Your task to perform on an android device: turn on the 24-hour format for clock Image 0: 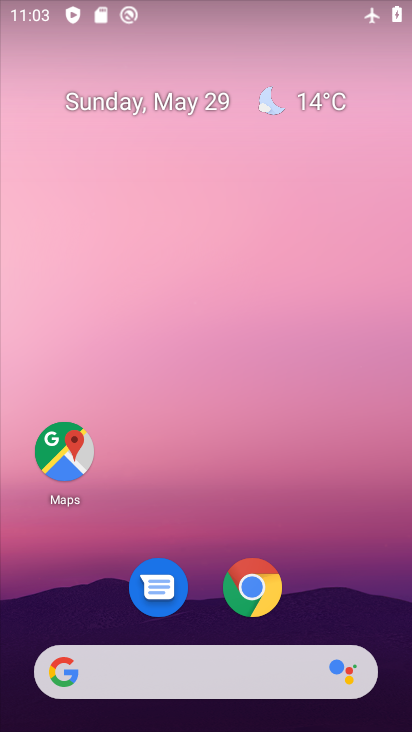
Step 0: drag from (372, 509) to (354, 80)
Your task to perform on an android device: turn on the 24-hour format for clock Image 1: 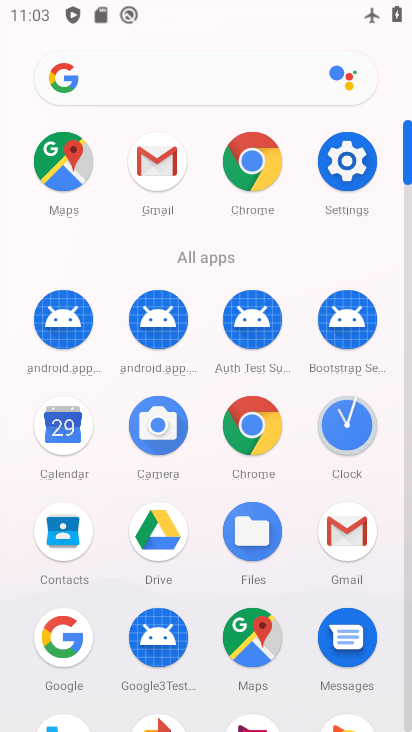
Step 1: click (353, 152)
Your task to perform on an android device: turn on the 24-hour format for clock Image 2: 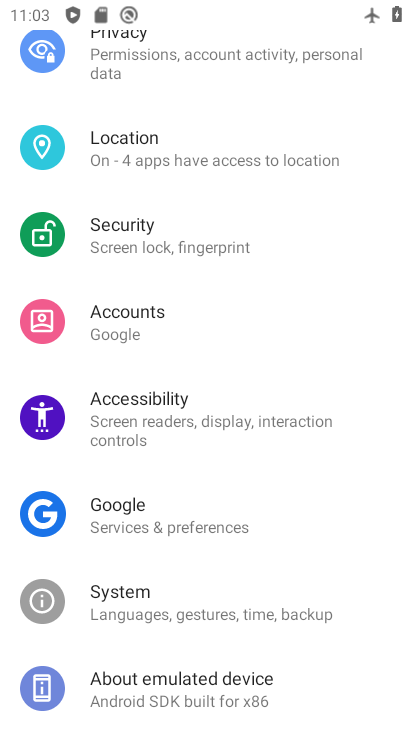
Step 2: drag from (265, 110) to (304, 638)
Your task to perform on an android device: turn on the 24-hour format for clock Image 3: 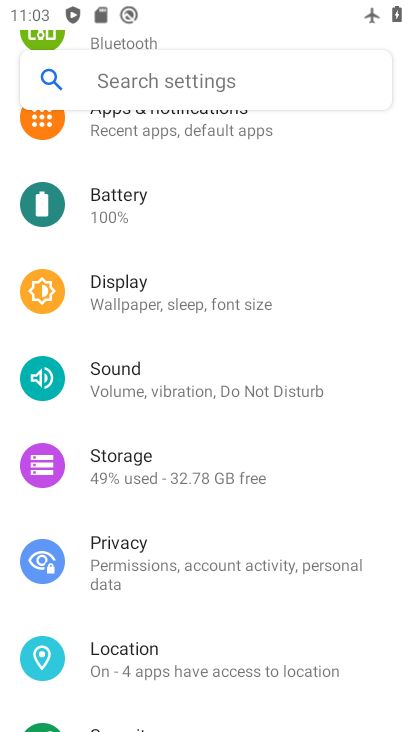
Step 3: drag from (274, 192) to (348, 691)
Your task to perform on an android device: turn on the 24-hour format for clock Image 4: 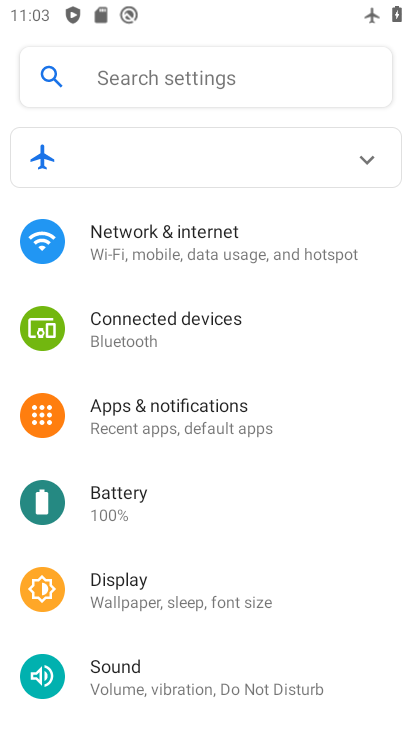
Step 4: click (122, 157)
Your task to perform on an android device: turn on the 24-hour format for clock Image 5: 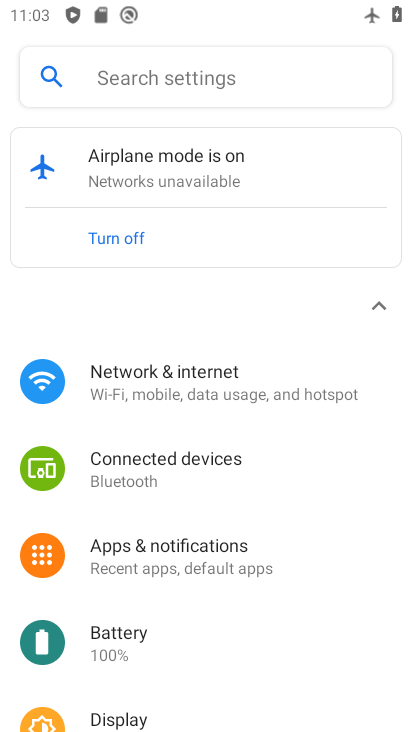
Step 5: click (107, 245)
Your task to perform on an android device: turn on the 24-hour format for clock Image 6: 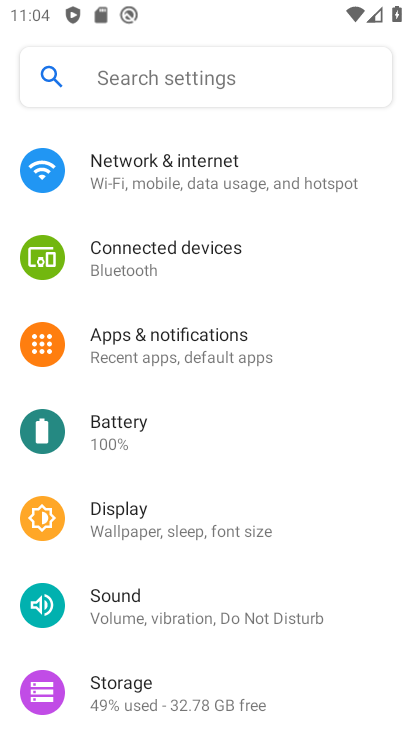
Step 6: drag from (287, 566) to (306, 265)
Your task to perform on an android device: turn on the 24-hour format for clock Image 7: 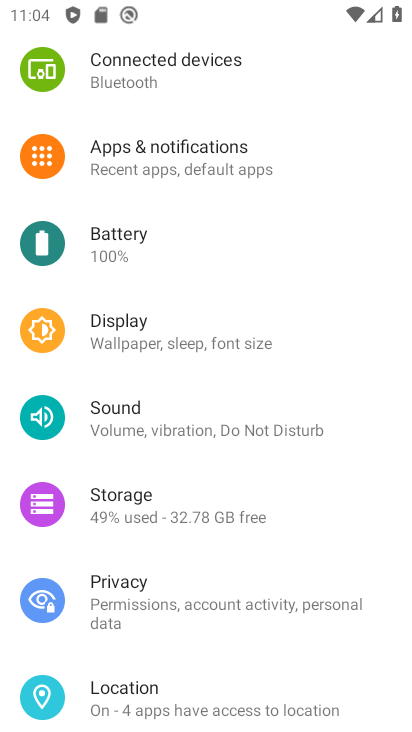
Step 7: drag from (318, 488) to (324, 259)
Your task to perform on an android device: turn on the 24-hour format for clock Image 8: 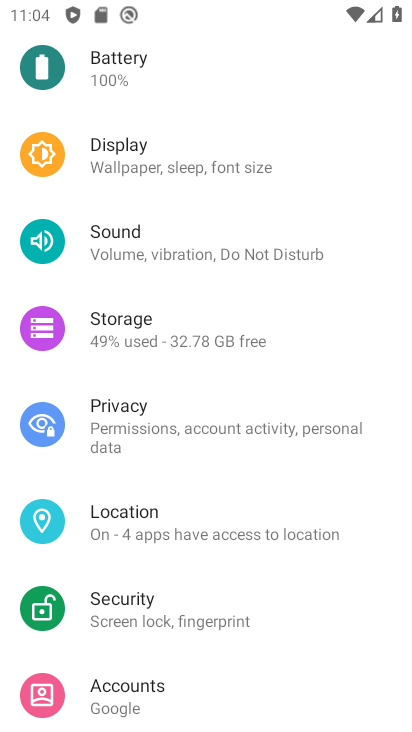
Step 8: press home button
Your task to perform on an android device: turn on the 24-hour format for clock Image 9: 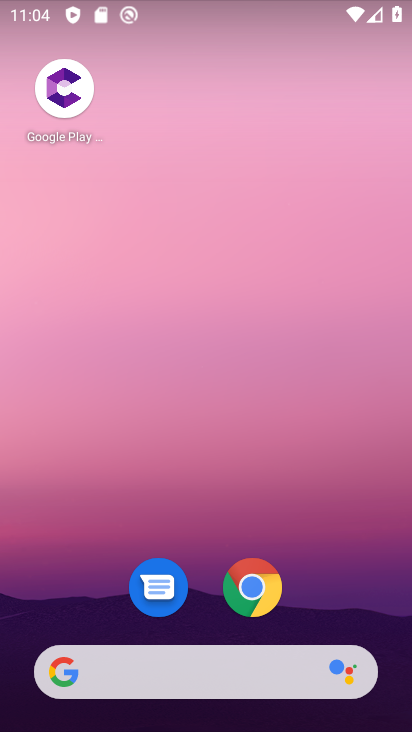
Step 9: drag from (335, 592) to (374, 77)
Your task to perform on an android device: turn on the 24-hour format for clock Image 10: 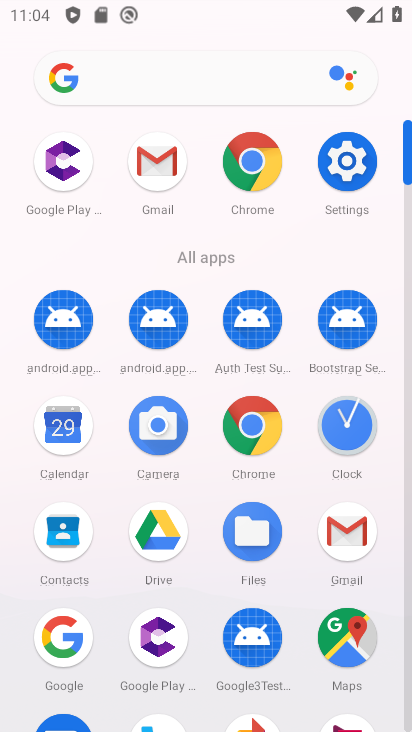
Step 10: click (334, 424)
Your task to perform on an android device: turn on the 24-hour format for clock Image 11: 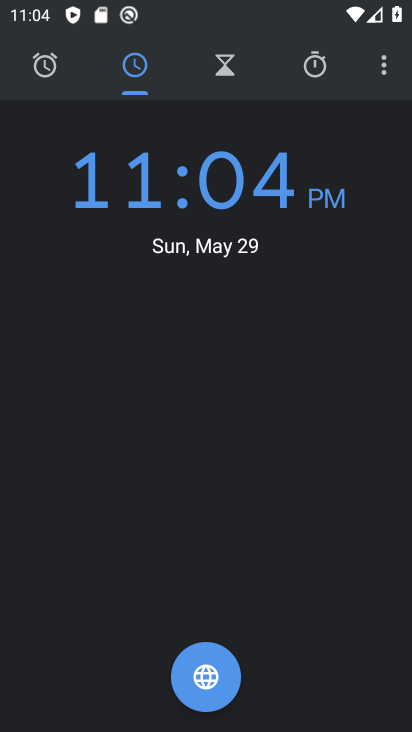
Step 11: click (385, 78)
Your task to perform on an android device: turn on the 24-hour format for clock Image 12: 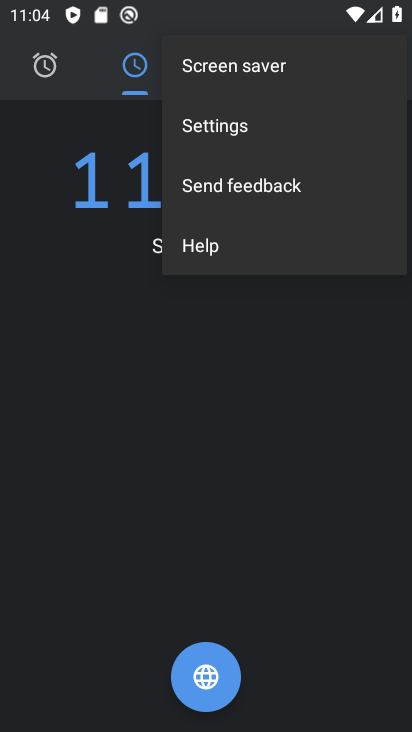
Step 12: click (219, 131)
Your task to perform on an android device: turn on the 24-hour format for clock Image 13: 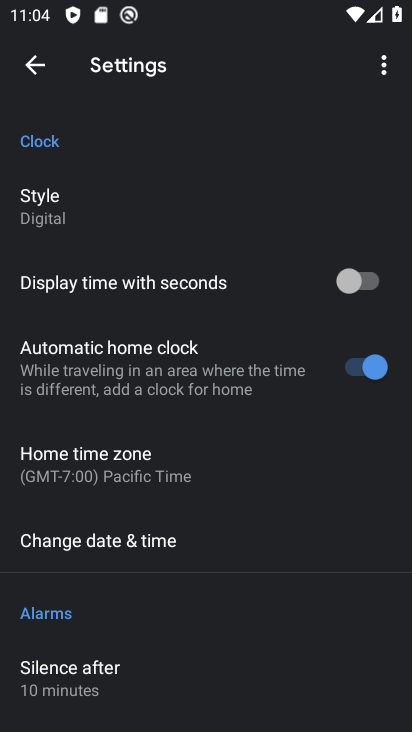
Step 13: click (207, 559)
Your task to perform on an android device: turn on the 24-hour format for clock Image 14: 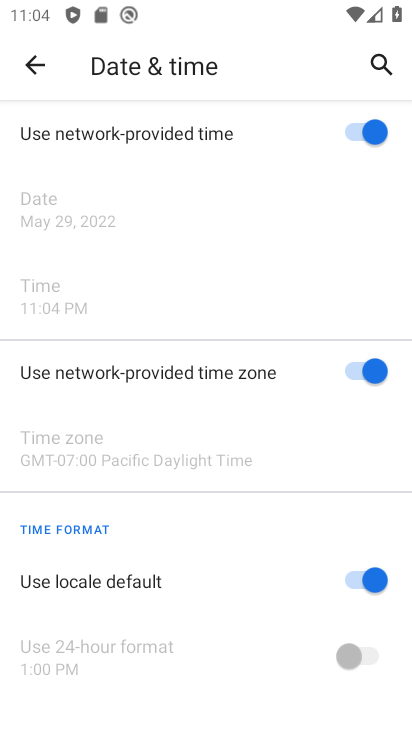
Step 14: drag from (262, 596) to (277, 247)
Your task to perform on an android device: turn on the 24-hour format for clock Image 15: 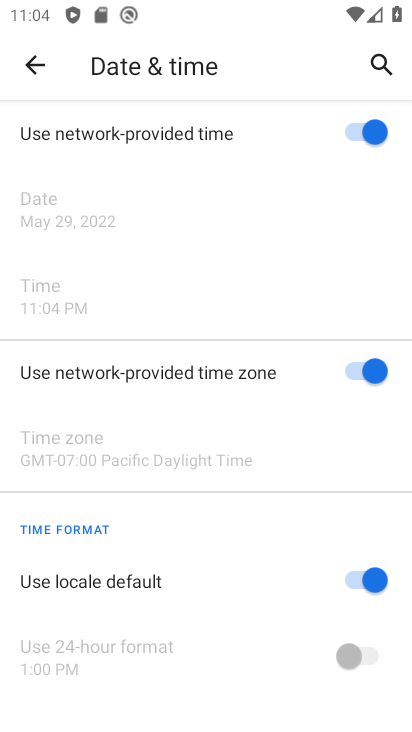
Step 15: click (358, 587)
Your task to perform on an android device: turn on the 24-hour format for clock Image 16: 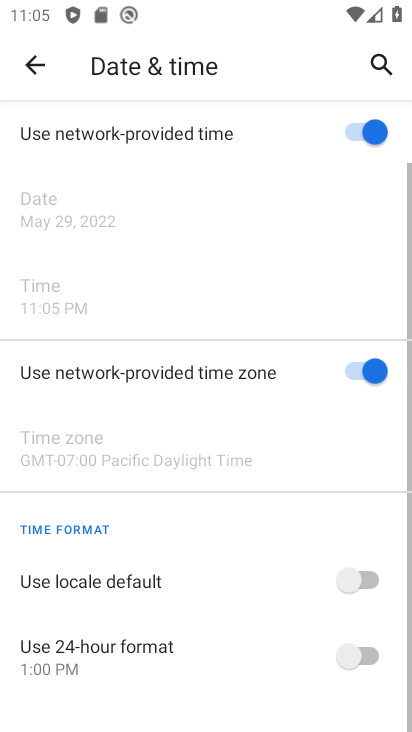
Step 16: click (371, 657)
Your task to perform on an android device: turn on the 24-hour format for clock Image 17: 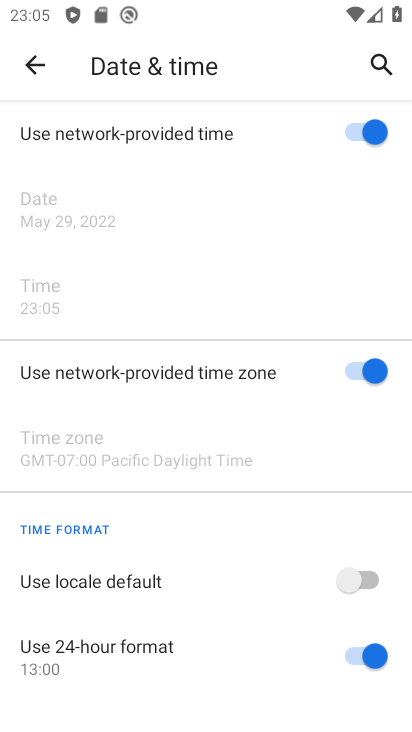
Step 17: task complete